Your task to perform on an android device: What's a good restaurant near me? Image 0: 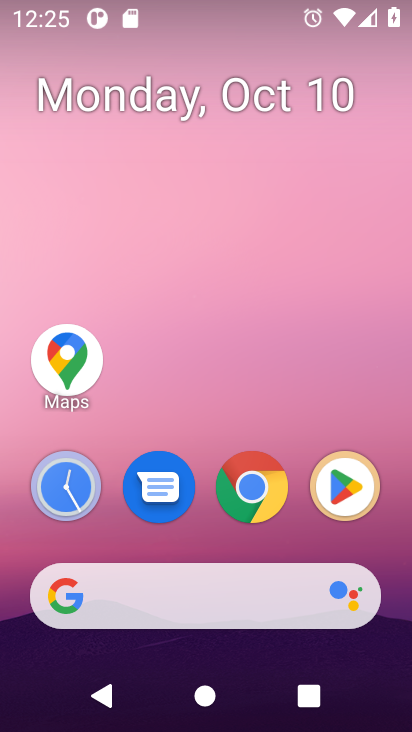
Step 0: click (212, 77)
Your task to perform on an android device: What's a good restaurant near me? Image 1: 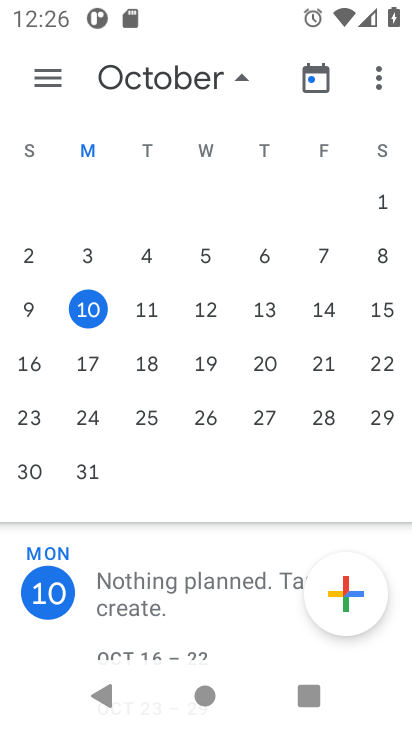
Step 1: press home button
Your task to perform on an android device: What's a good restaurant near me? Image 2: 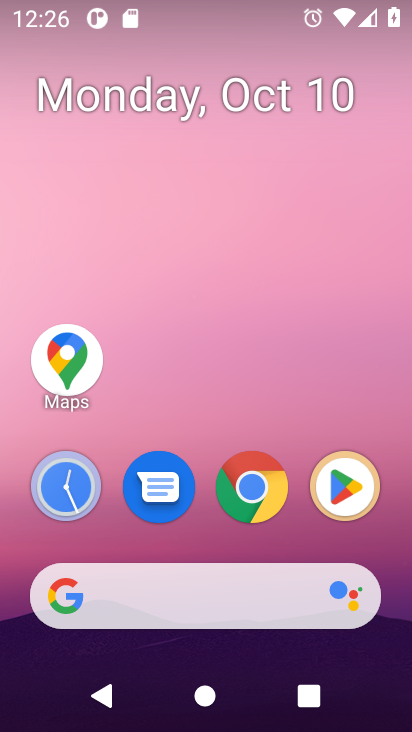
Step 2: drag from (196, 556) to (215, 85)
Your task to perform on an android device: What's a good restaurant near me? Image 3: 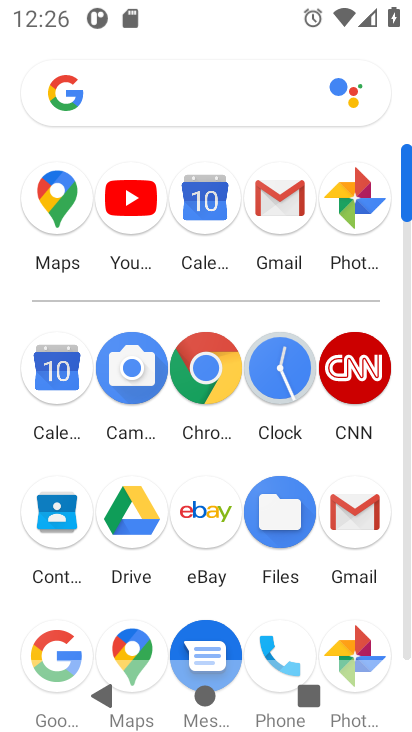
Step 3: click (197, 368)
Your task to perform on an android device: What's a good restaurant near me? Image 4: 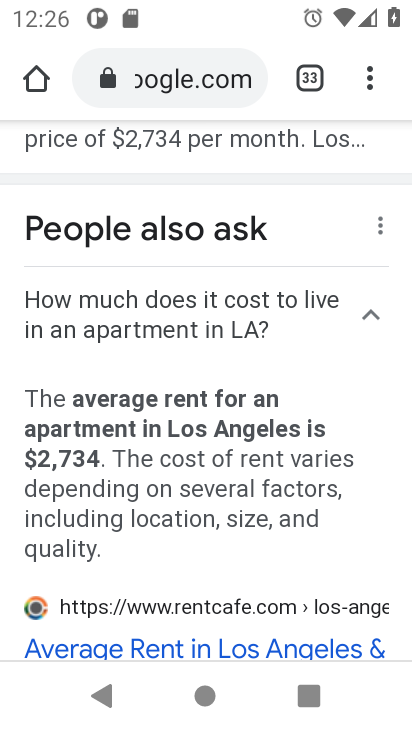
Step 4: drag from (210, 192) to (198, 513)
Your task to perform on an android device: What's a good restaurant near me? Image 5: 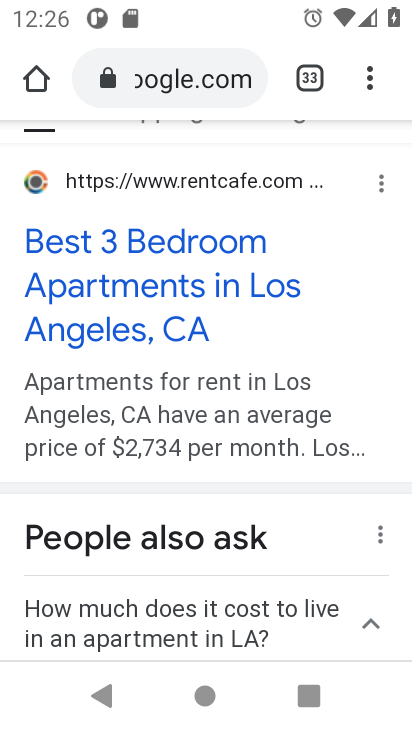
Step 5: drag from (217, 206) to (229, 511)
Your task to perform on an android device: What's a good restaurant near me? Image 6: 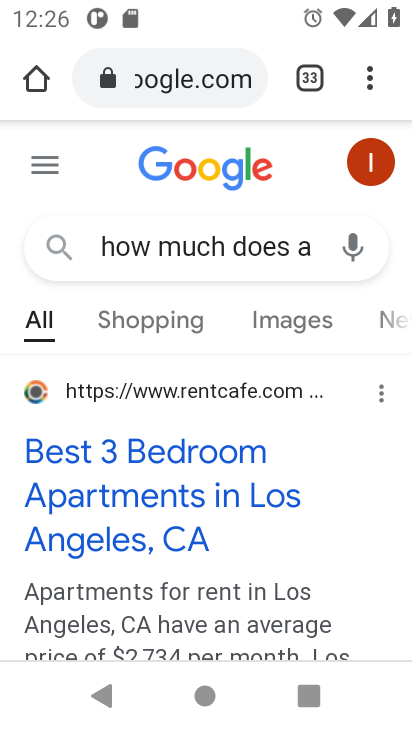
Step 6: click (243, 243)
Your task to perform on an android device: What's a good restaurant near me? Image 7: 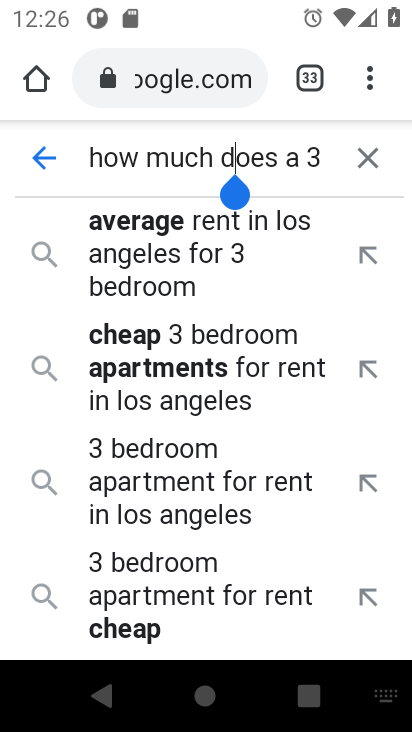
Step 7: click (359, 154)
Your task to perform on an android device: What's a good restaurant near me? Image 8: 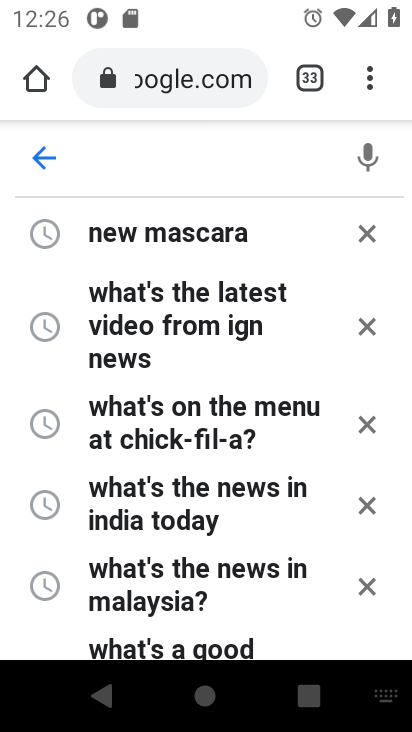
Step 8: type " good restaurant near me?"
Your task to perform on an android device: What's a good restaurant near me? Image 9: 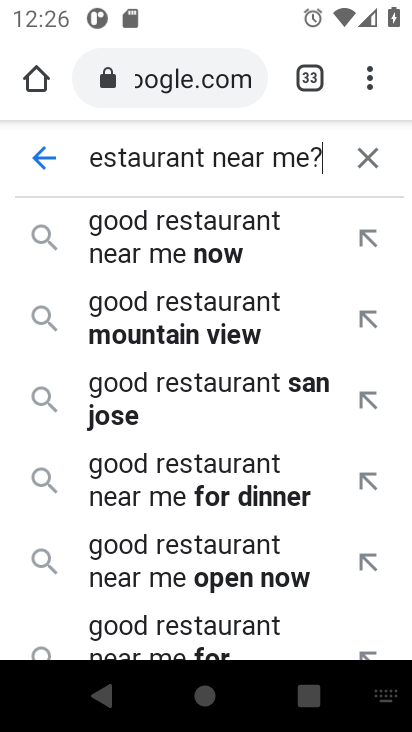
Step 9: type ""
Your task to perform on an android device: What's a good restaurant near me? Image 10: 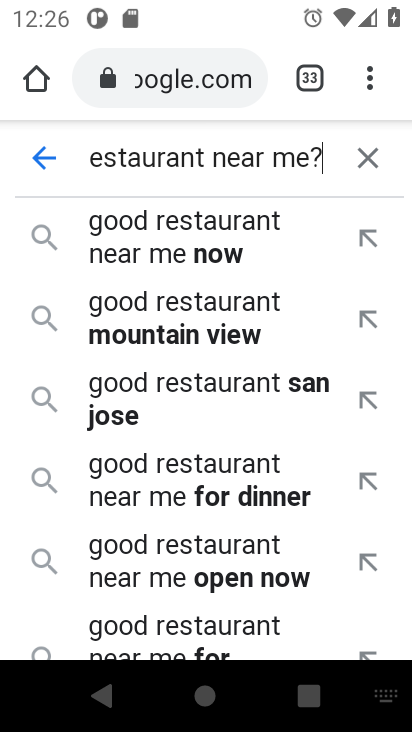
Step 10: click (211, 639)
Your task to perform on an android device: What's a good restaurant near me? Image 11: 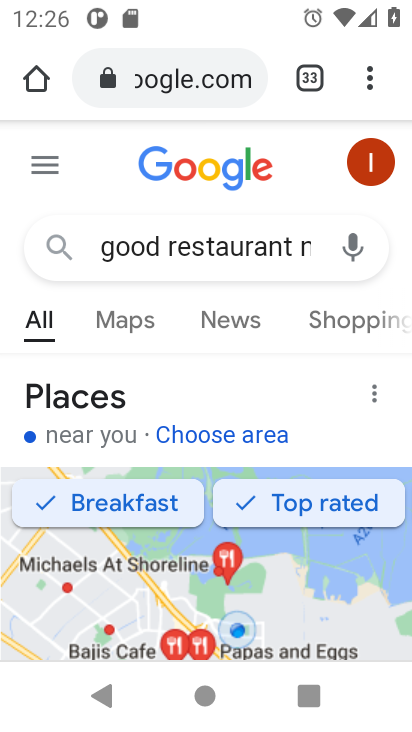
Step 11: task complete